Your task to perform on an android device: Open Chrome and go to settings Image 0: 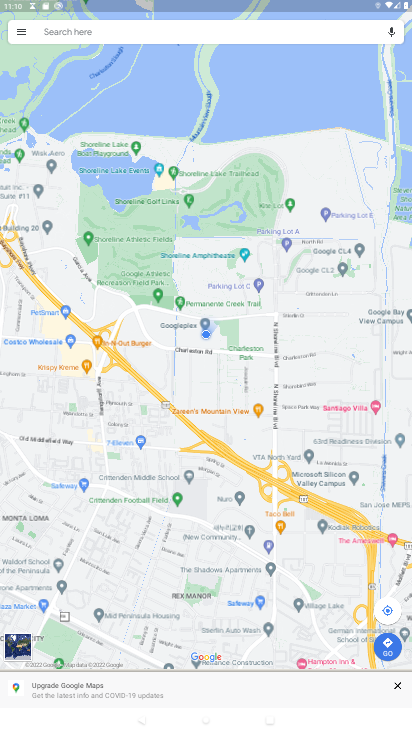
Step 0: press home button
Your task to perform on an android device: Open Chrome and go to settings Image 1: 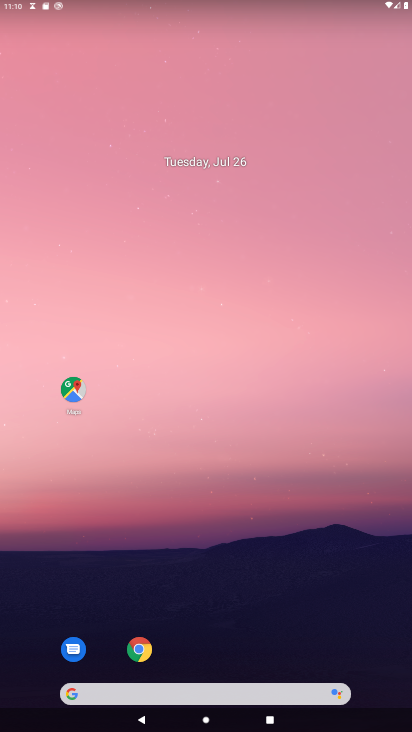
Step 1: click (146, 658)
Your task to perform on an android device: Open Chrome and go to settings Image 2: 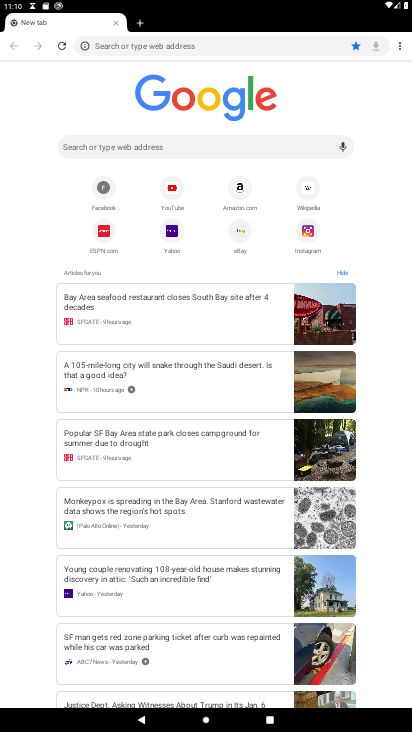
Step 2: click (400, 43)
Your task to perform on an android device: Open Chrome and go to settings Image 3: 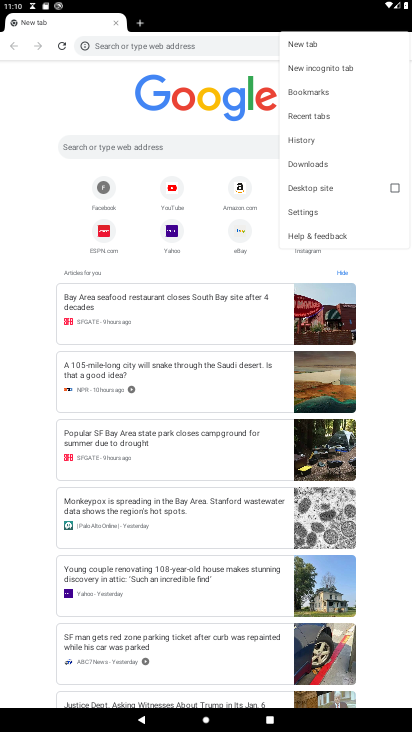
Step 3: click (299, 217)
Your task to perform on an android device: Open Chrome and go to settings Image 4: 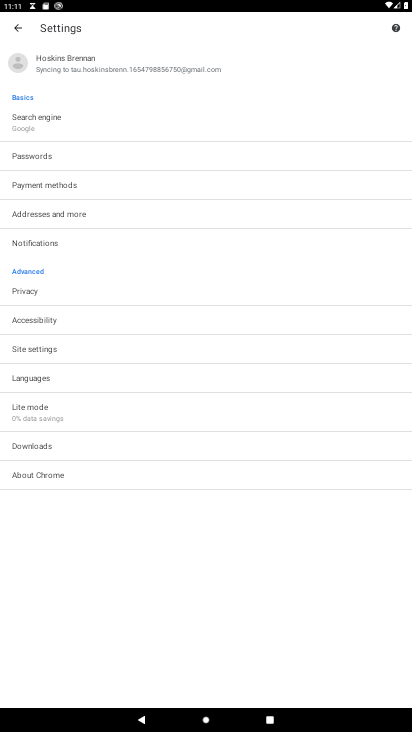
Step 4: task complete